Your task to perform on an android device: allow cookies in the chrome app Image 0: 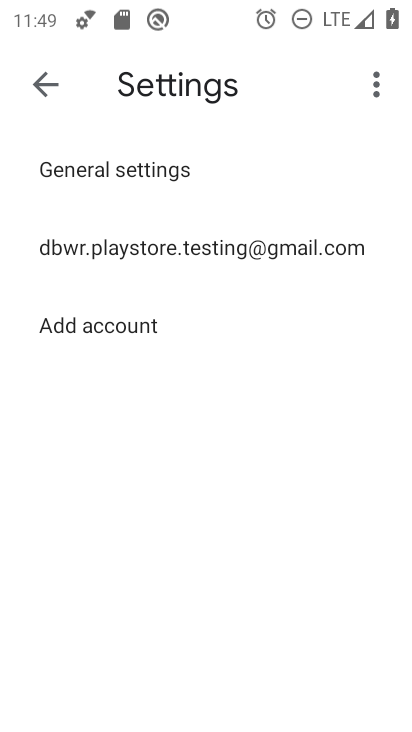
Step 0: press home button
Your task to perform on an android device: allow cookies in the chrome app Image 1: 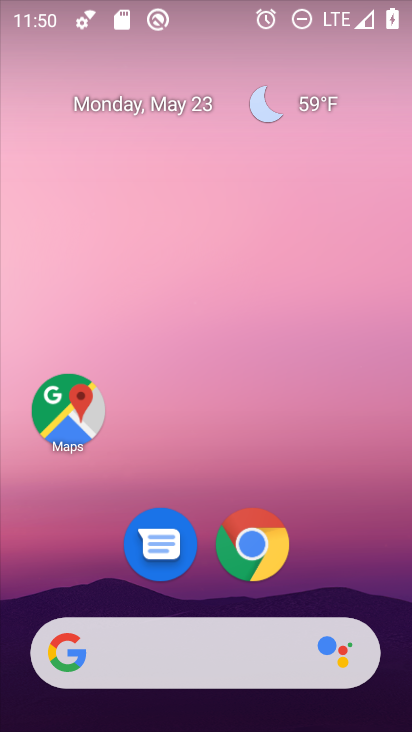
Step 1: click (250, 546)
Your task to perform on an android device: allow cookies in the chrome app Image 2: 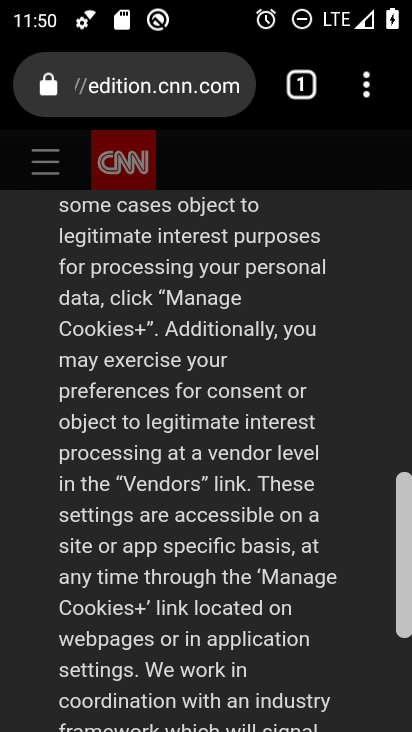
Step 2: click (364, 94)
Your task to perform on an android device: allow cookies in the chrome app Image 3: 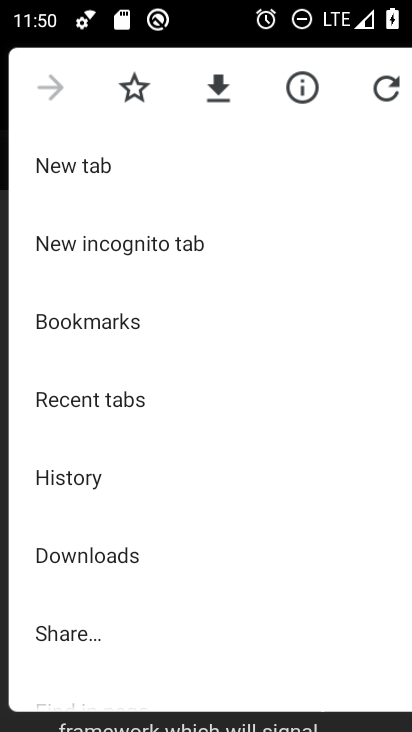
Step 3: drag from (224, 609) to (238, 232)
Your task to perform on an android device: allow cookies in the chrome app Image 4: 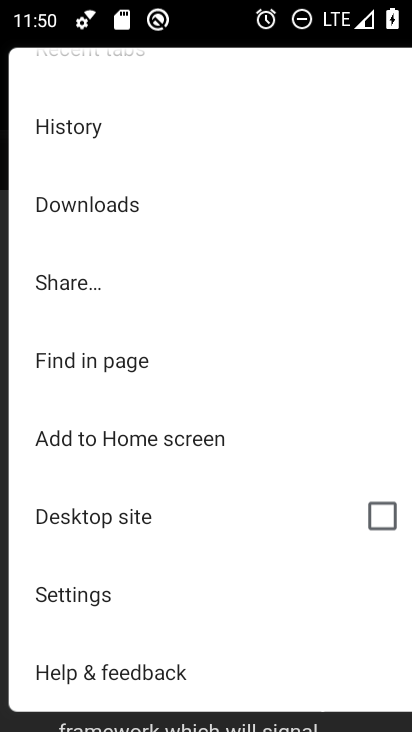
Step 4: click (88, 606)
Your task to perform on an android device: allow cookies in the chrome app Image 5: 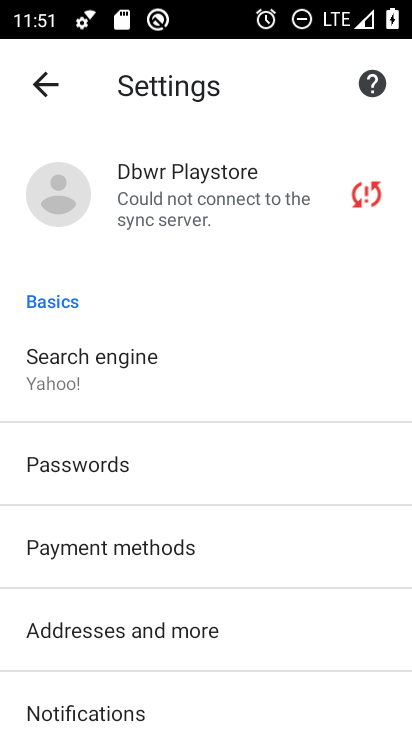
Step 5: drag from (257, 662) to (251, 185)
Your task to perform on an android device: allow cookies in the chrome app Image 6: 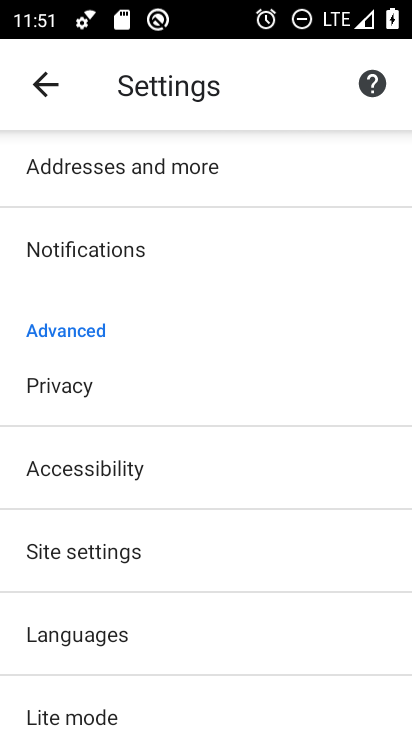
Step 6: click (65, 546)
Your task to perform on an android device: allow cookies in the chrome app Image 7: 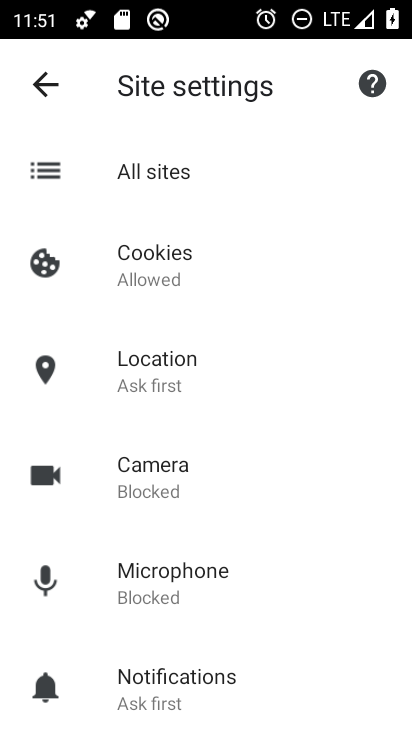
Step 7: task complete